Your task to perform on an android device: change the clock style Image 0: 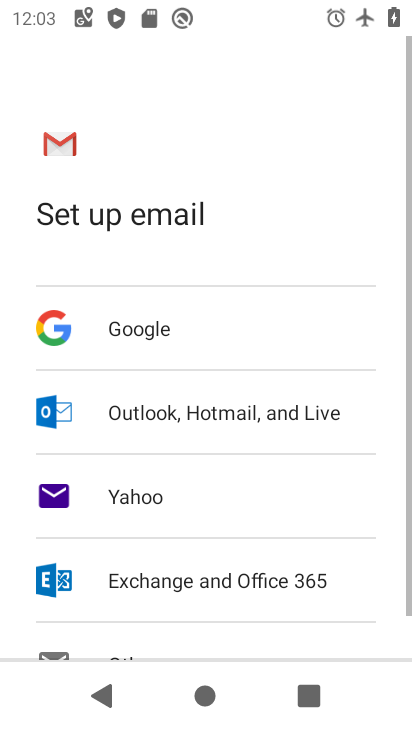
Step 0: press home button
Your task to perform on an android device: change the clock style Image 1: 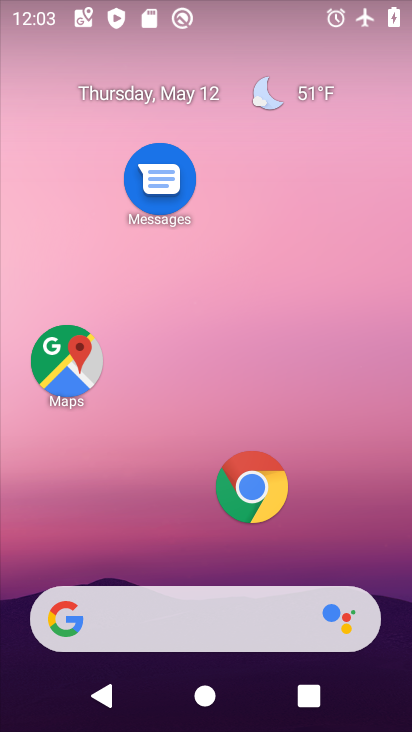
Step 1: drag from (178, 545) to (230, 90)
Your task to perform on an android device: change the clock style Image 2: 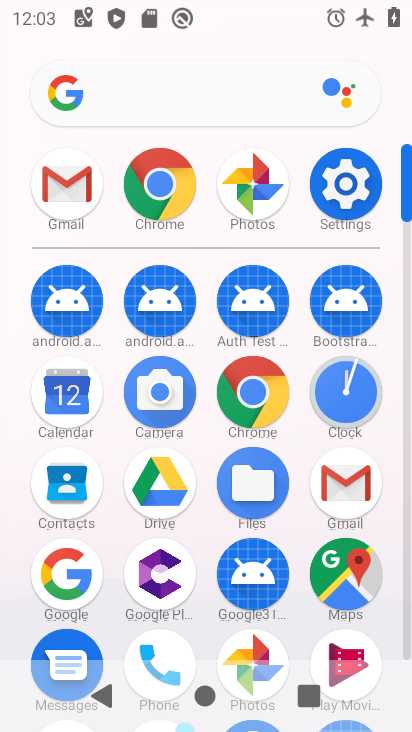
Step 2: click (351, 384)
Your task to perform on an android device: change the clock style Image 3: 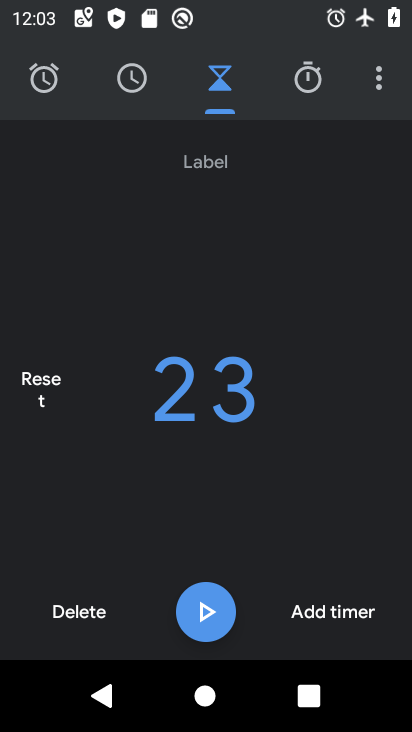
Step 3: click (376, 79)
Your task to perform on an android device: change the clock style Image 4: 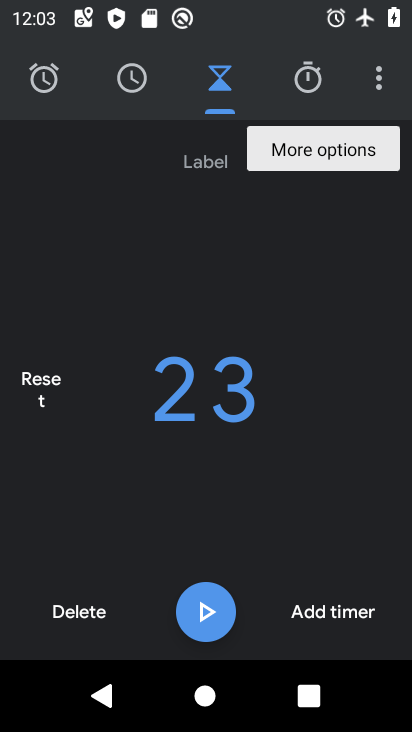
Step 4: click (376, 79)
Your task to perform on an android device: change the clock style Image 5: 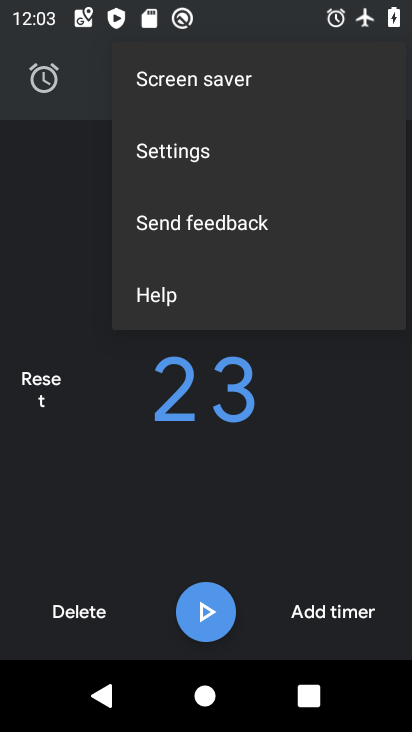
Step 5: click (251, 149)
Your task to perform on an android device: change the clock style Image 6: 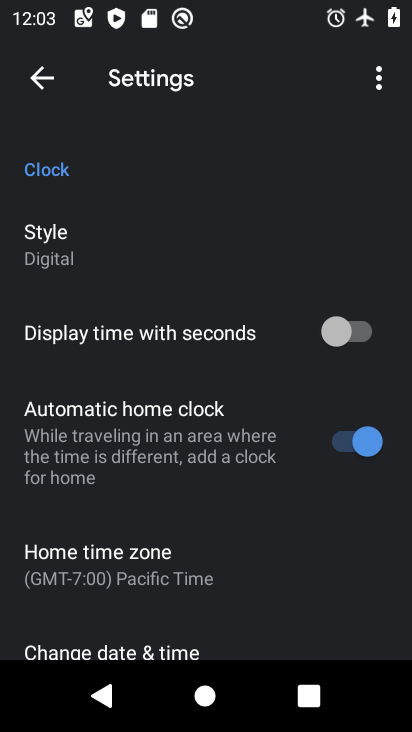
Step 6: click (99, 241)
Your task to perform on an android device: change the clock style Image 7: 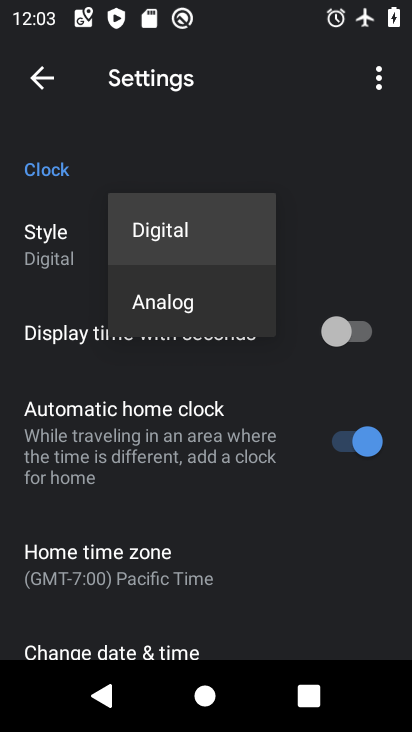
Step 7: click (170, 295)
Your task to perform on an android device: change the clock style Image 8: 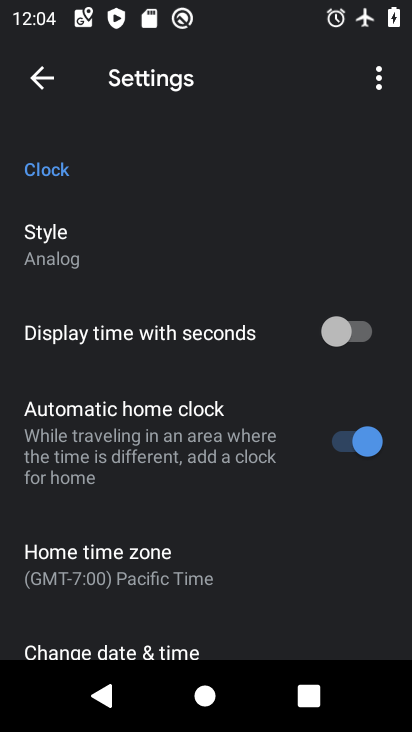
Step 8: task complete